Your task to perform on an android device: Go to ESPN.com Image 0: 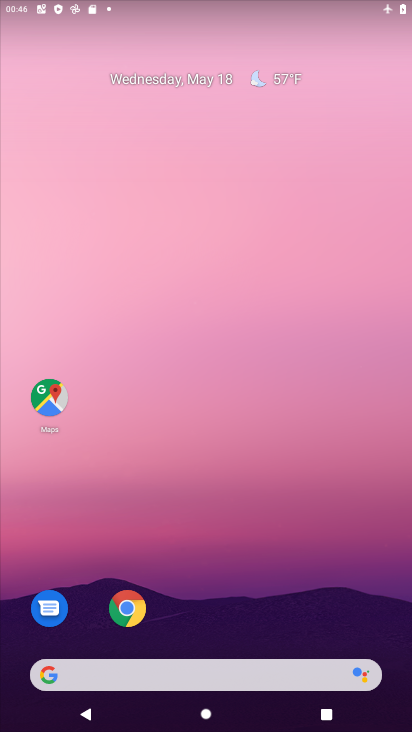
Step 0: click (127, 605)
Your task to perform on an android device: Go to ESPN.com Image 1: 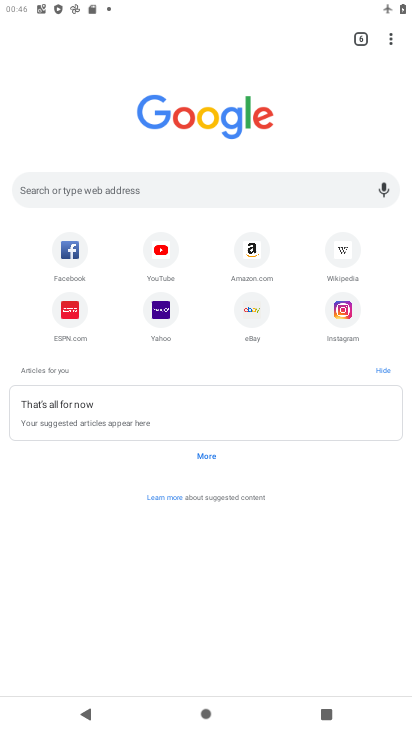
Step 1: click (69, 308)
Your task to perform on an android device: Go to ESPN.com Image 2: 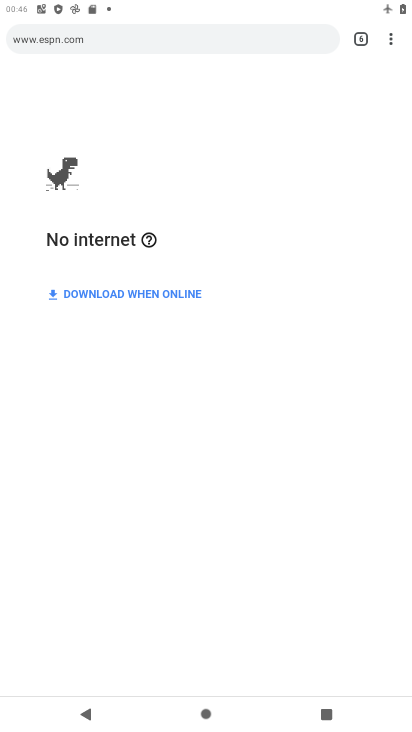
Step 2: task complete